Your task to perform on an android device: Do I have any events today? Image 0: 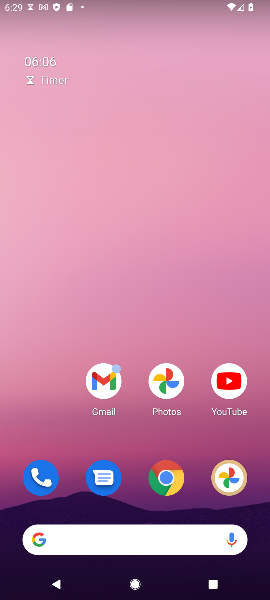
Step 0: drag from (126, 509) to (145, 23)
Your task to perform on an android device: Do I have any events today? Image 1: 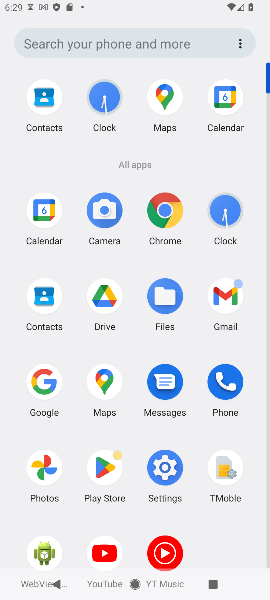
Step 1: click (53, 217)
Your task to perform on an android device: Do I have any events today? Image 2: 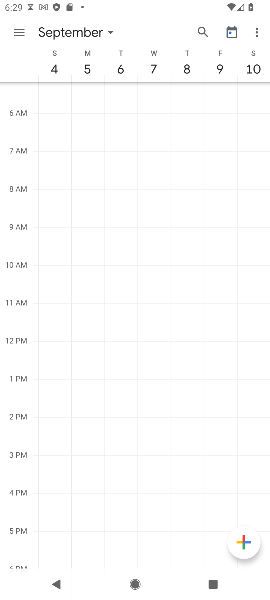
Step 2: click (61, 30)
Your task to perform on an android device: Do I have any events today? Image 3: 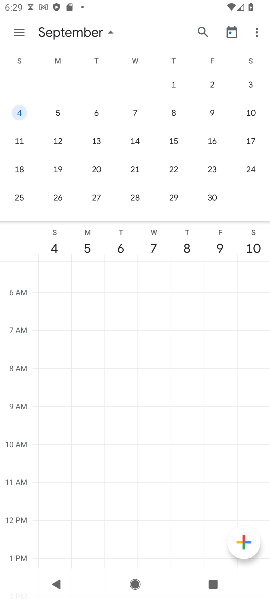
Step 3: drag from (45, 147) to (263, 155)
Your task to perform on an android device: Do I have any events today? Image 4: 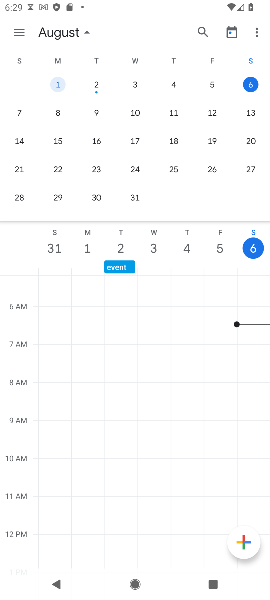
Step 4: click (247, 82)
Your task to perform on an android device: Do I have any events today? Image 5: 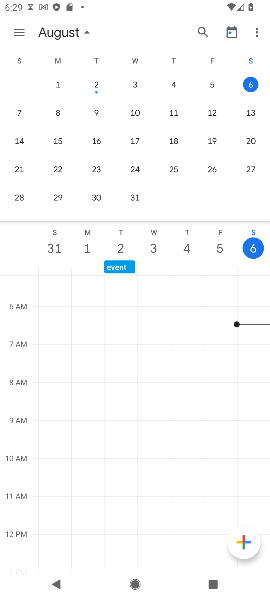
Step 5: click (16, 26)
Your task to perform on an android device: Do I have any events today? Image 6: 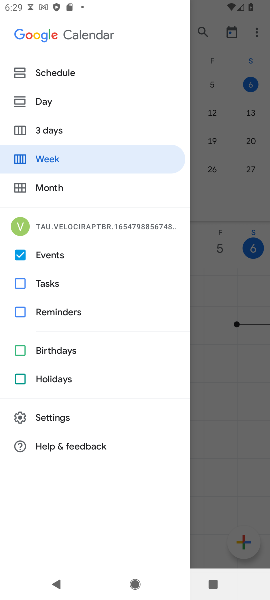
Step 6: click (47, 100)
Your task to perform on an android device: Do I have any events today? Image 7: 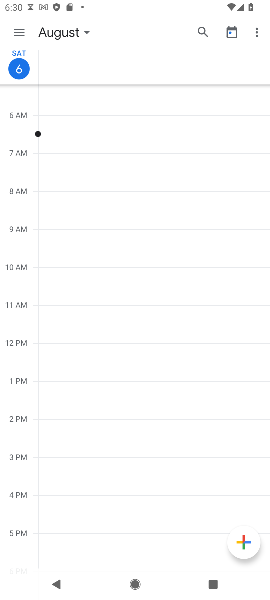
Step 7: task complete